Your task to perform on an android device: Open eBay Image 0: 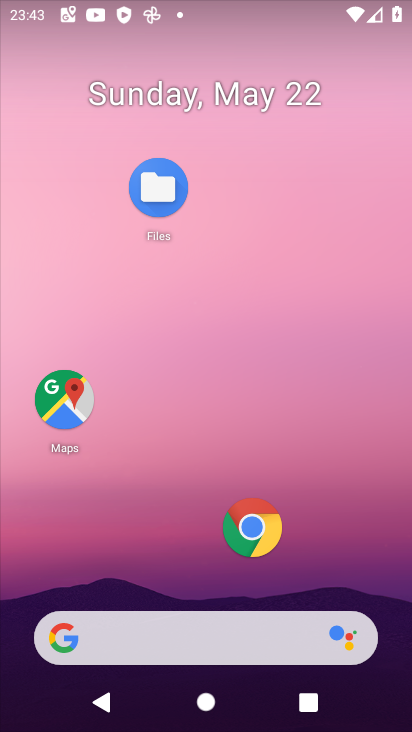
Step 0: click (249, 526)
Your task to perform on an android device: Open eBay Image 1: 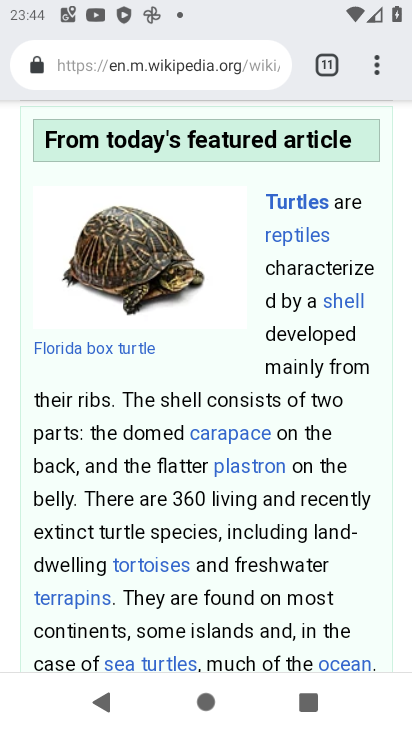
Step 1: click (374, 66)
Your task to perform on an android device: Open eBay Image 2: 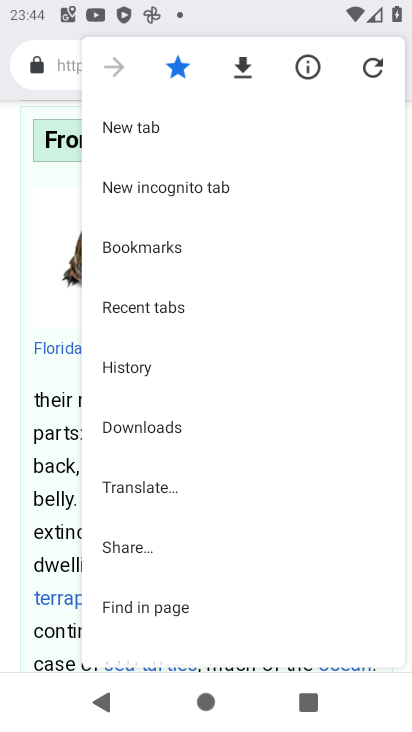
Step 2: click (126, 125)
Your task to perform on an android device: Open eBay Image 3: 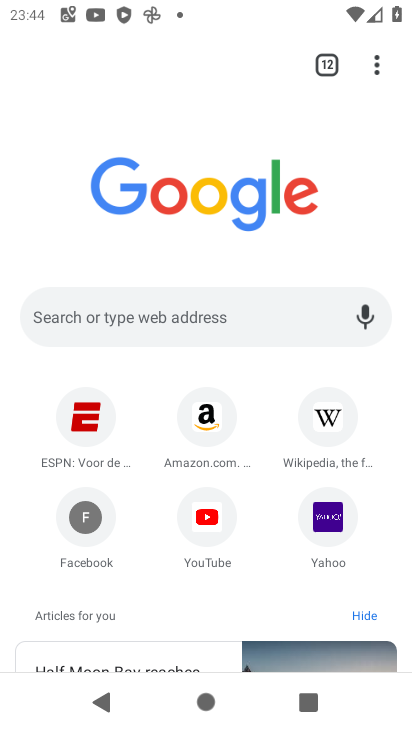
Step 3: click (165, 316)
Your task to perform on an android device: Open eBay Image 4: 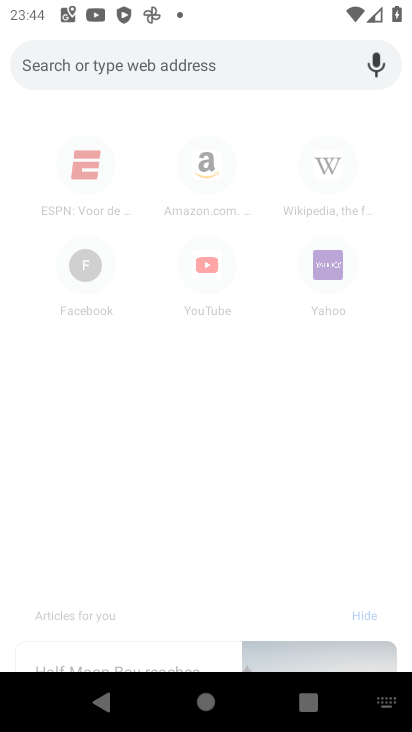
Step 4: type "ebay"
Your task to perform on an android device: Open eBay Image 5: 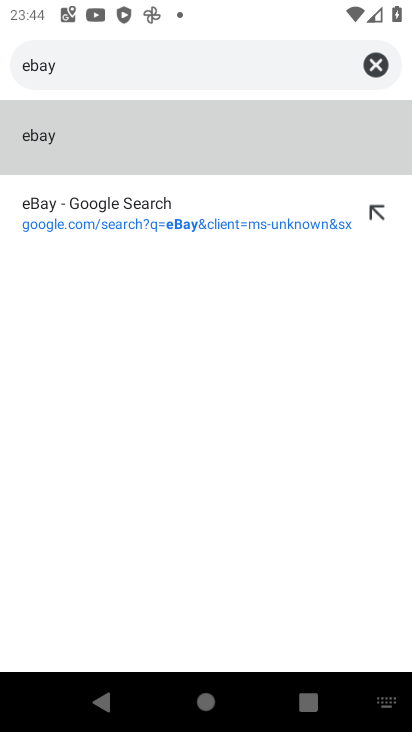
Step 5: click (50, 128)
Your task to perform on an android device: Open eBay Image 6: 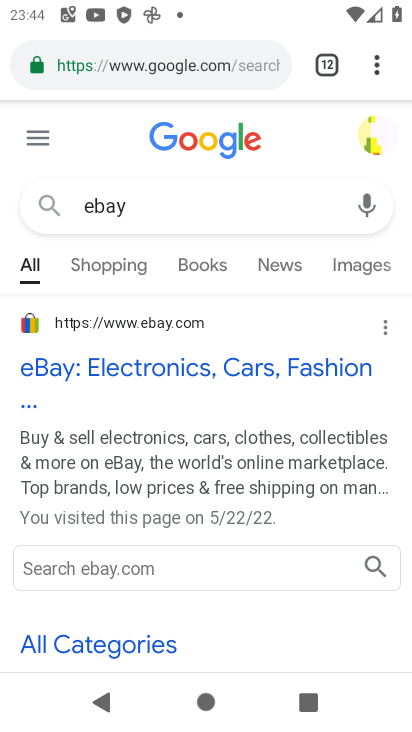
Step 6: task complete